Your task to perform on an android device: Show the shopping cart on bestbuy.com. Search for jbl charge 4 on bestbuy.com, select the first entry, and add it to the cart. Image 0: 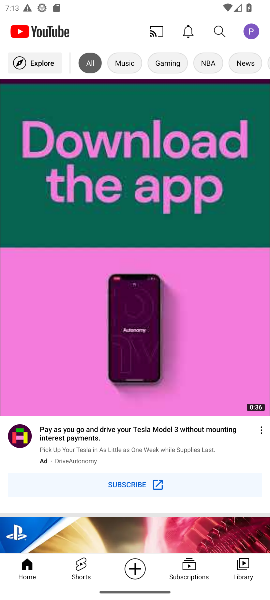
Step 0: press home button
Your task to perform on an android device: Show the shopping cart on bestbuy.com. Search for jbl charge 4 on bestbuy.com, select the first entry, and add it to the cart. Image 1: 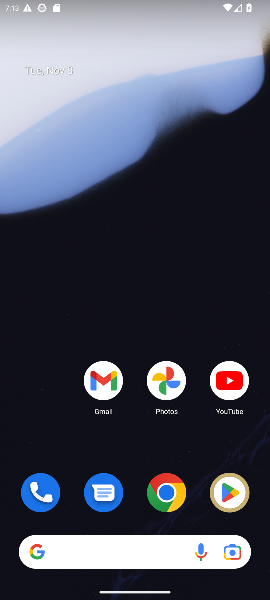
Step 1: click (169, 493)
Your task to perform on an android device: Show the shopping cart on bestbuy.com. Search for jbl charge 4 on bestbuy.com, select the first entry, and add it to the cart. Image 2: 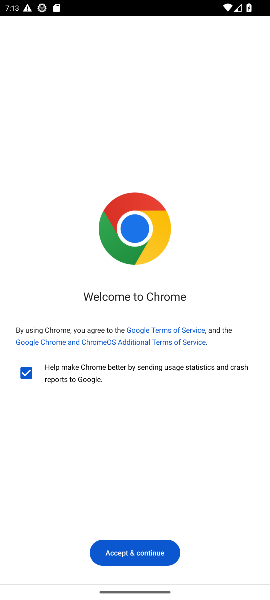
Step 2: click (149, 554)
Your task to perform on an android device: Show the shopping cart on bestbuy.com. Search for jbl charge 4 on bestbuy.com, select the first entry, and add it to the cart. Image 3: 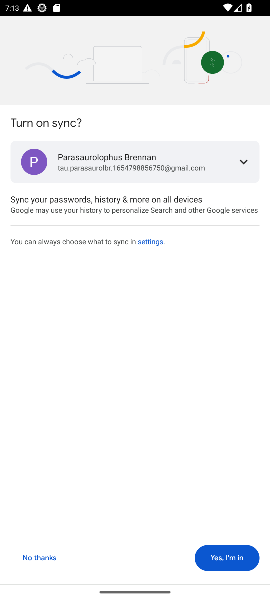
Step 3: click (216, 557)
Your task to perform on an android device: Show the shopping cart on bestbuy.com. Search for jbl charge 4 on bestbuy.com, select the first entry, and add it to the cart. Image 4: 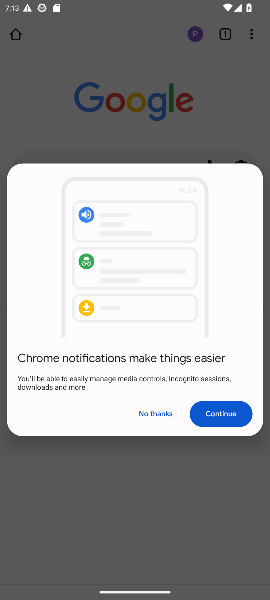
Step 4: click (153, 410)
Your task to perform on an android device: Show the shopping cart on bestbuy.com. Search for jbl charge 4 on bestbuy.com, select the first entry, and add it to the cart. Image 5: 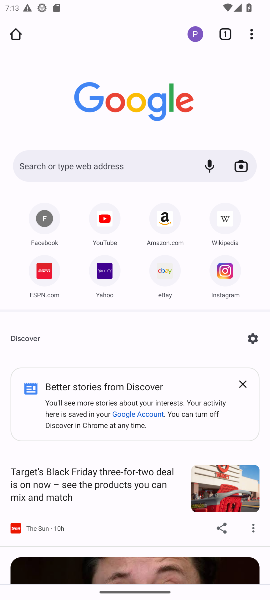
Step 5: click (178, 163)
Your task to perform on an android device: Show the shopping cart on bestbuy.com. Search for jbl charge 4 on bestbuy.com, select the first entry, and add it to the cart. Image 6: 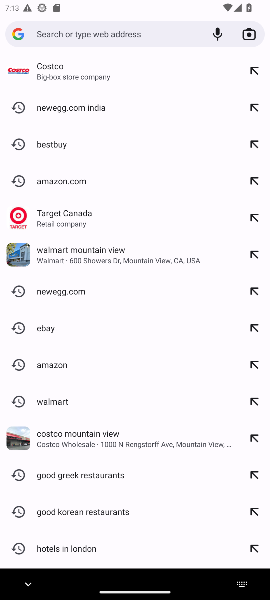
Step 6: type "bestbuy.com"
Your task to perform on an android device: Show the shopping cart on bestbuy.com. Search for jbl charge 4 on bestbuy.com, select the first entry, and add it to the cart. Image 7: 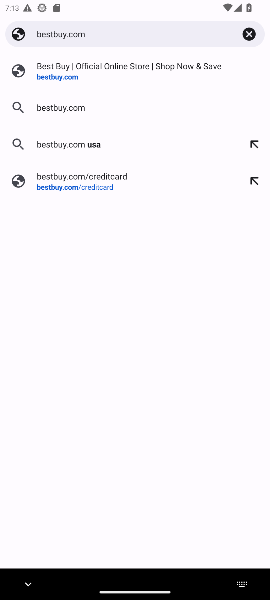
Step 7: click (73, 111)
Your task to perform on an android device: Show the shopping cart on bestbuy.com. Search for jbl charge 4 on bestbuy.com, select the first entry, and add it to the cart. Image 8: 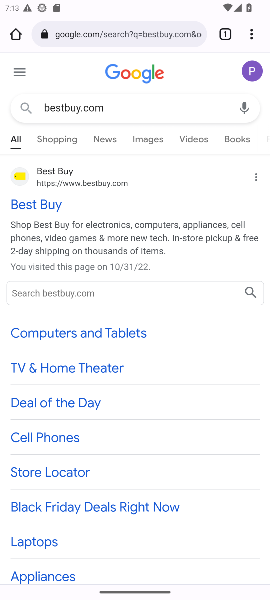
Step 8: click (86, 184)
Your task to perform on an android device: Show the shopping cart on bestbuy.com. Search for jbl charge 4 on bestbuy.com, select the first entry, and add it to the cart. Image 9: 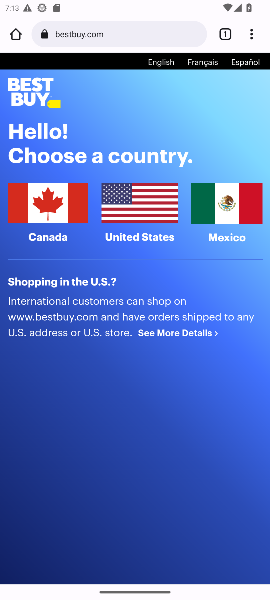
Step 9: click (133, 188)
Your task to perform on an android device: Show the shopping cart on bestbuy.com. Search for jbl charge 4 on bestbuy.com, select the first entry, and add it to the cart. Image 10: 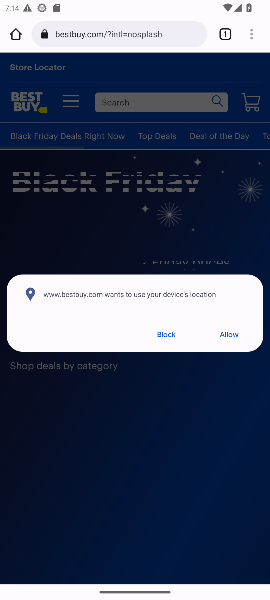
Step 10: click (166, 331)
Your task to perform on an android device: Show the shopping cart on bestbuy.com. Search for jbl charge 4 on bestbuy.com, select the first entry, and add it to the cart. Image 11: 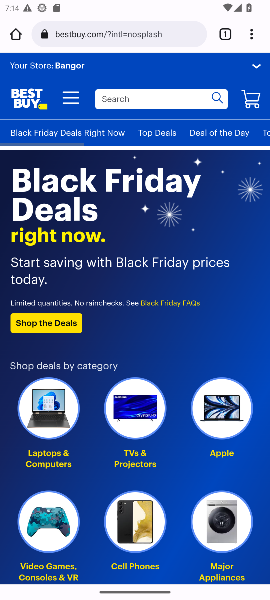
Step 11: click (140, 96)
Your task to perform on an android device: Show the shopping cart on bestbuy.com. Search for jbl charge 4 on bestbuy.com, select the first entry, and add it to the cart. Image 12: 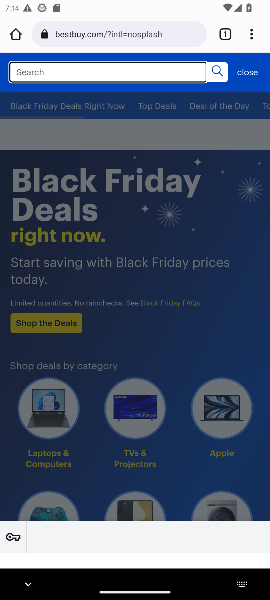
Step 12: type "jbl charge 4"
Your task to perform on an android device: Show the shopping cart on bestbuy.com. Search for jbl charge 4 on bestbuy.com, select the first entry, and add it to the cart. Image 13: 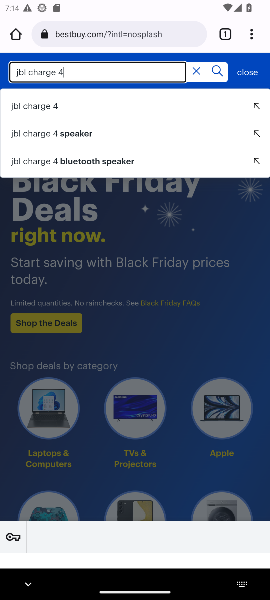
Step 13: click (48, 108)
Your task to perform on an android device: Show the shopping cart on bestbuy.com. Search for jbl charge 4 on bestbuy.com, select the first entry, and add it to the cart. Image 14: 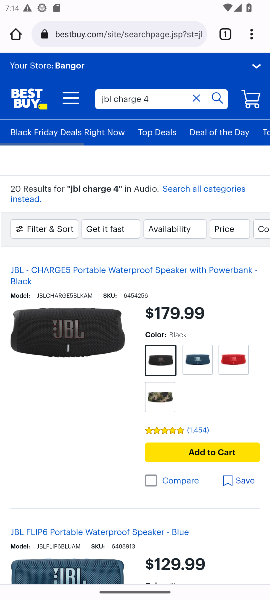
Step 14: drag from (207, 491) to (196, 195)
Your task to perform on an android device: Show the shopping cart on bestbuy.com. Search for jbl charge 4 on bestbuy.com, select the first entry, and add it to the cart. Image 15: 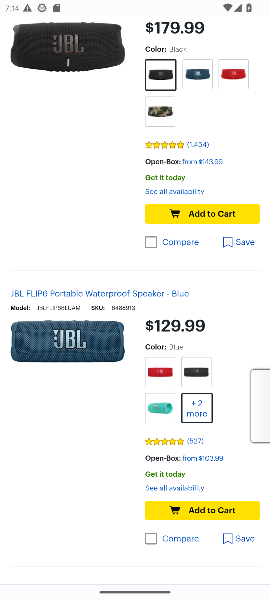
Step 15: drag from (209, 476) to (207, 188)
Your task to perform on an android device: Show the shopping cart on bestbuy.com. Search for jbl charge 4 on bestbuy.com, select the first entry, and add it to the cart. Image 16: 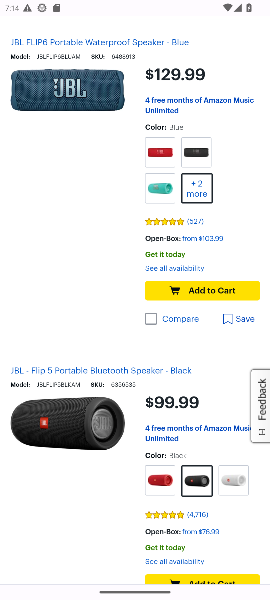
Step 16: drag from (128, 445) to (164, 147)
Your task to perform on an android device: Show the shopping cart on bestbuy.com. Search for jbl charge 4 on bestbuy.com, select the first entry, and add it to the cart. Image 17: 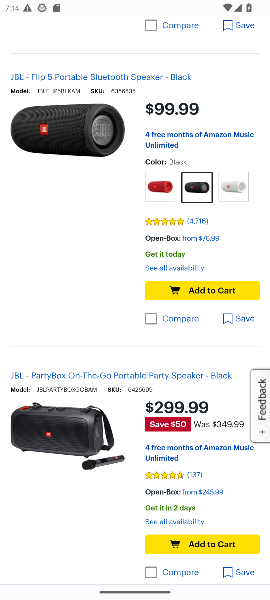
Step 17: drag from (113, 484) to (144, 151)
Your task to perform on an android device: Show the shopping cart on bestbuy.com. Search for jbl charge 4 on bestbuy.com, select the first entry, and add it to the cart. Image 18: 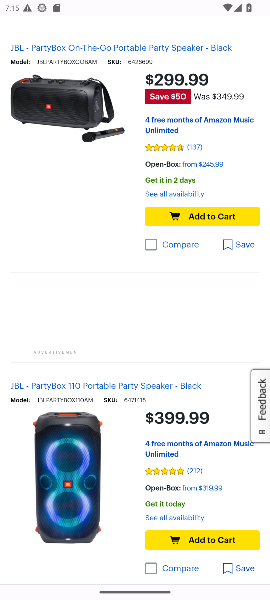
Step 18: drag from (95, 470) to (106, 132)
Your task to perform on an android device: Show the shopping cart on bestbuy.com. Search for jbl charge 4 on bestbuy.com, select the first entry, and add it to the cart. Image 19: 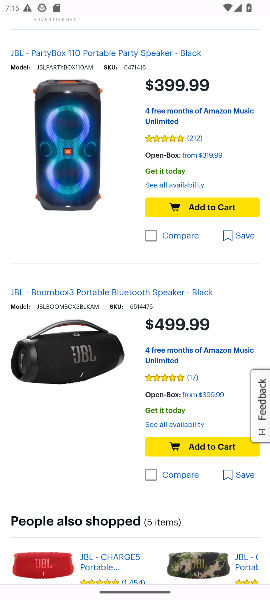
Step 19: drag from (125, 452) to (122, 182)
Your task to perform on an android device: Show the shopping cart on bestbuy.com. Search for jbl charge 4 on bestbuy.com, select the first entry, and add it to the cart. Image 20: 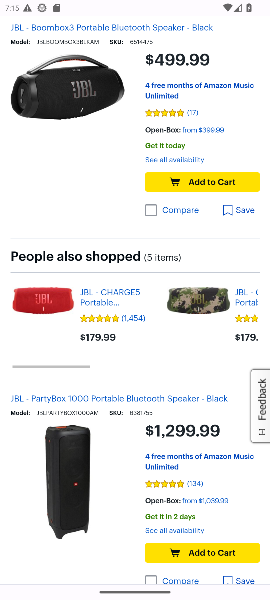
Step 20: drag from (120, 526) to (155, 224)
Your task to perform on an android device: Show the shopping cart on bestbuy.com. Search for jbl charge 4 on bestbuy.com, select the first entry, and add it to the cart. Image 21: 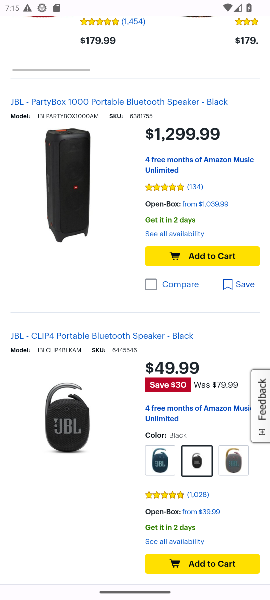
Step 21: drag from (76, 432) to (93, 222)
Your task to perform on an android device: Show the shopping cart on bestbuy.com. Search for jbl charge 4 on bestbuy.com, select the first entry, and add it to the cart. Image 22: 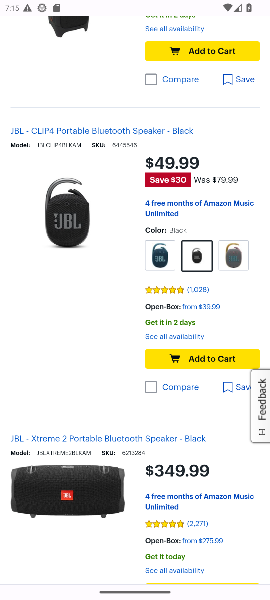
Step 22: click (51, 221)
Your task to perform on an android device: Show the shopping cart on bestbuy.com. Search for jbl charge 4 on bestbuy.com, select the first entry, and add it to the cart. Image 23: 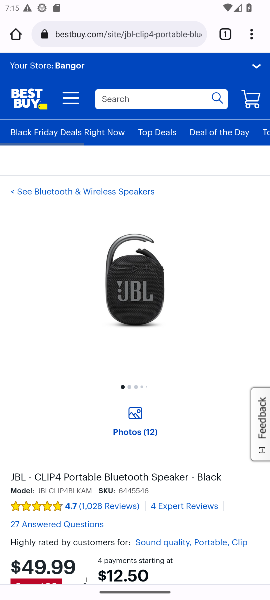
Step 23: drag from (196, 518) to (179, 280)
Your task to perform on an android device: Show the shopping cart on bestbuy.com. Search for jbl charge 4 on bestbuy.com, select the first entry, and add it to the cart. Image 24: 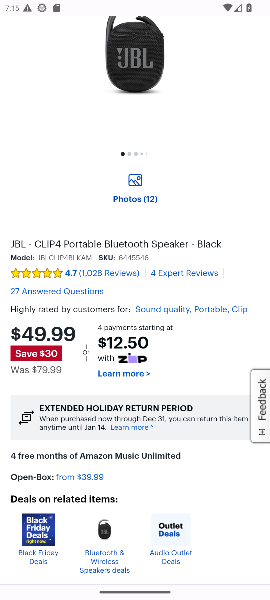
Step 24: drag from (215, 481) to (188, 170)
Your task to perform on an android device: Show the shopping cart on bestbuy.com. Search for jbl charge 4 on bestbuy.com, select the first entry, and add it to the cart. Image 25: 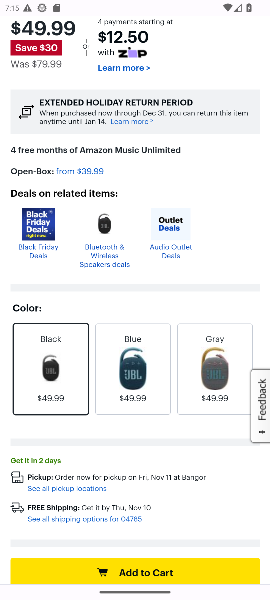
Step 25: click (211, 327)
Your task to perform on an android device: Show the shopping cart on bestbuy.com. Search for jbl charge 4 on bestbuy.com, select the first entry, and add it to the cart. Image 26: 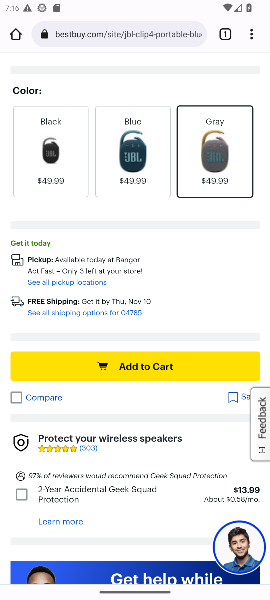
Step 26: click (158, 364)
Your task to perform on an android device: Show the shopping cart on bestbuy.com. Search for jbl charge 4 on bestbuy.com, select the first entry, and add it to the cart. Image 27: 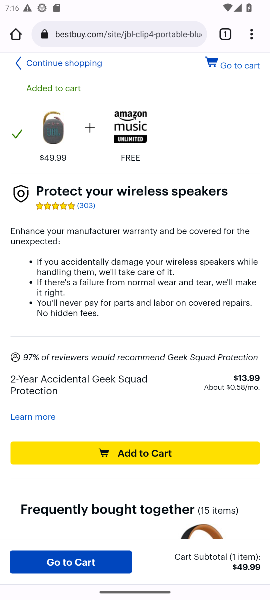
Step 27: task complete